Your task to perform on an android device: What is the recent news? Image 0: 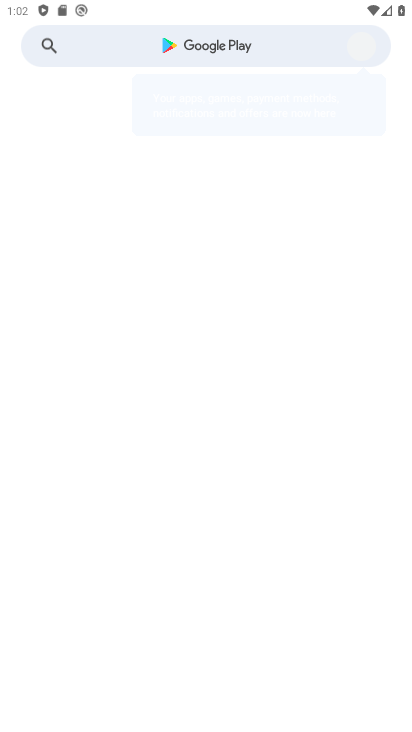
Step 0: press home button
Your task to perform on an android device: What is the recent news? Image 1: 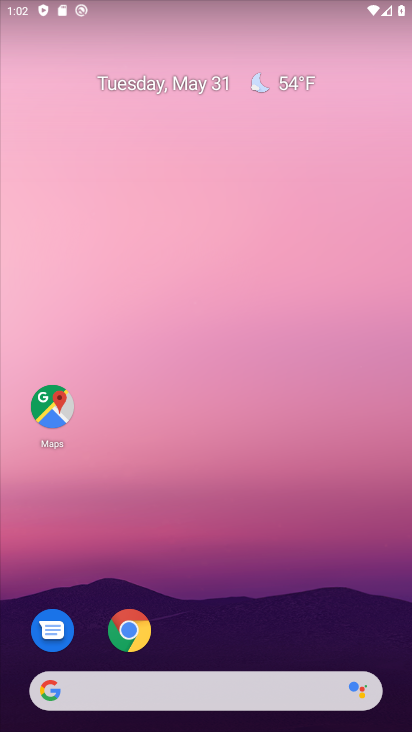
Step 1: drag from (202, 565) to (177, 63)
Your task to perform on an android device: What is the recent news? Image 2: 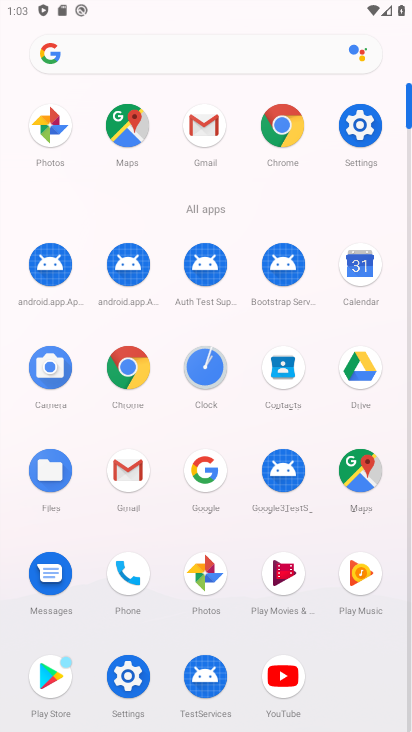
Step 2: click (206, 474)
Your task to perform on an android device: What is the recent news? Image 3: 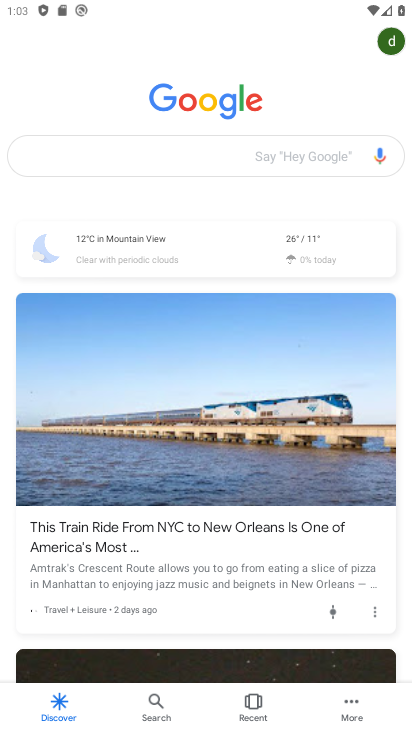
Step 3: click (123, 141)
Your task to perform on an android device: What is the recent news? Image 4: 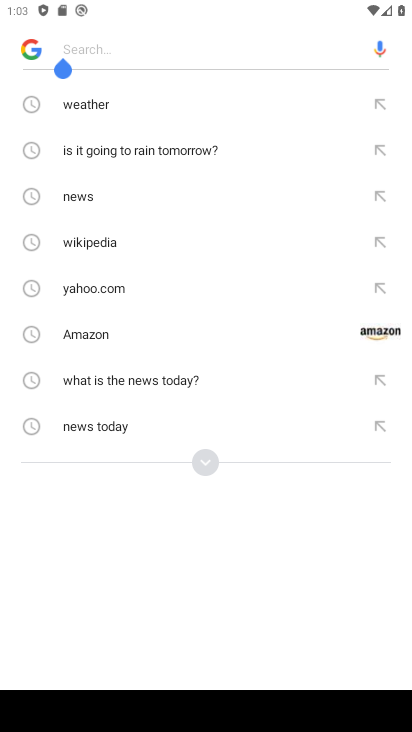
Step 4: click (208, 457)
Your task to perform on an android device: What is the recent news? Image 5: 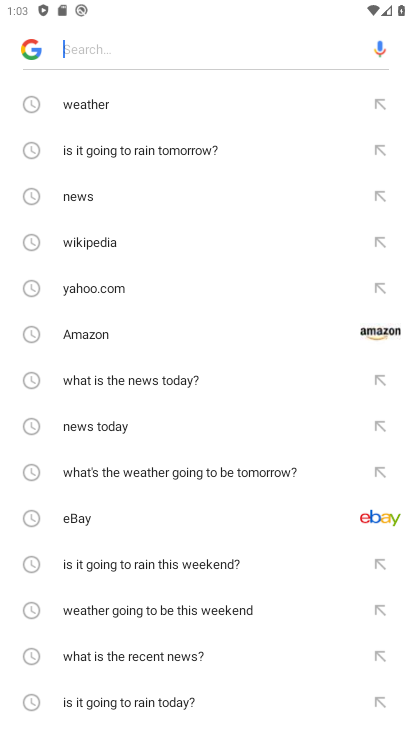
Step 5: drag from (202, 657) to (175, 482)
Your task to perform on an android device: What is the recent news? Image 6: 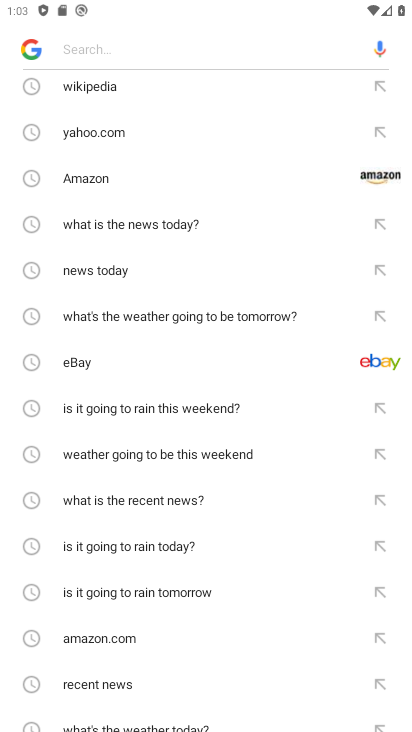
Step 6: click (141, 501)
Your task to perform on an android device: What is the recent news? Image 7: 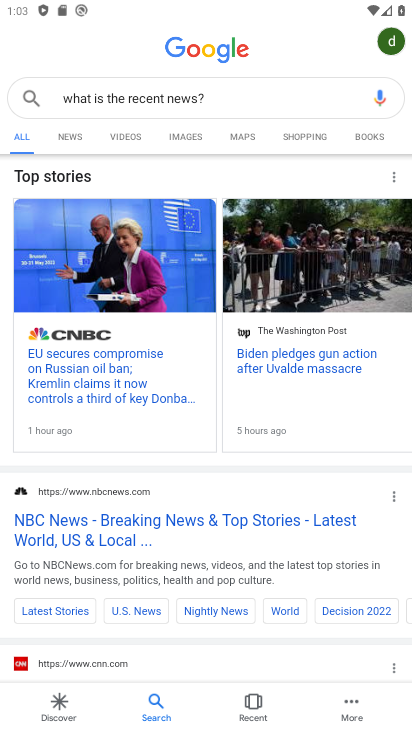
Step 7: task complete